Your task to perform on an android device: What's on my calendar tomorrow? Image 0: 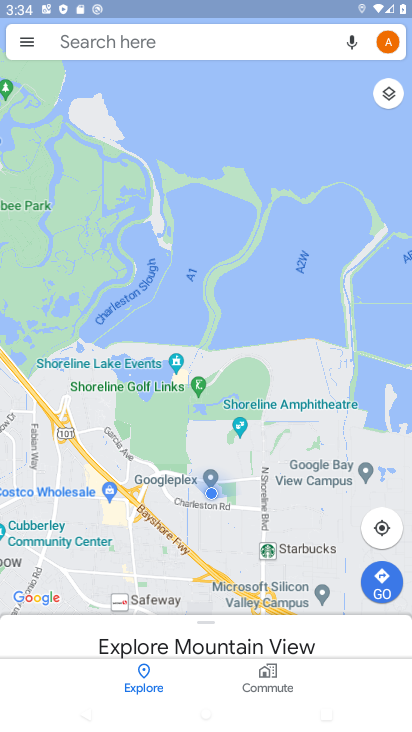
Step 0: press home button
Your task to perform on an android device: What's on my calendar tomorrow? Image 1: 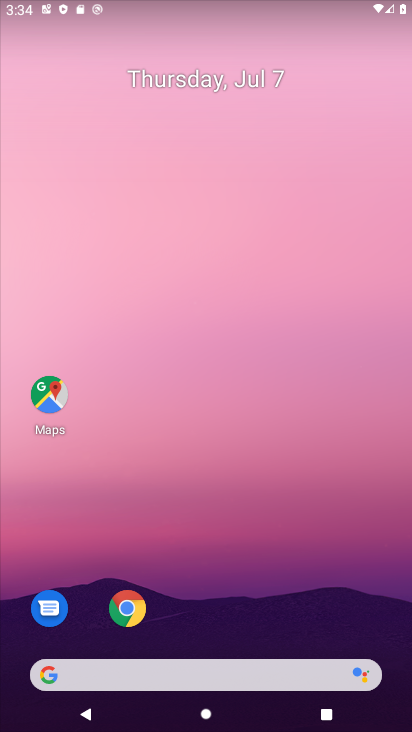
Step 1: drag from (376, 623) to (300, 28)
Your task to perform on an android device: What's on my calendar tomorrow? Image 2: 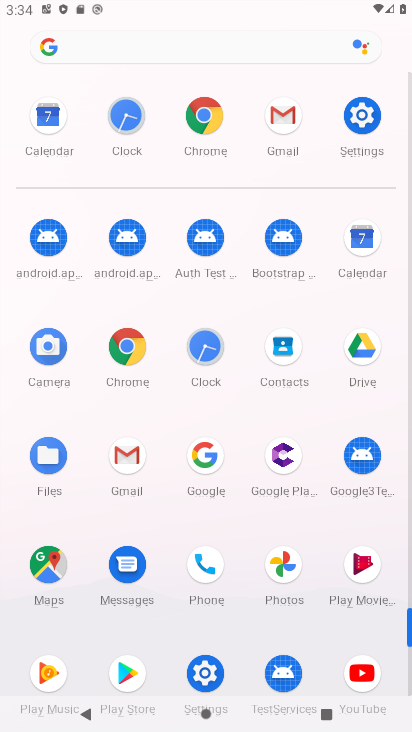
Step 2: click (363, 238)
Your task to perform on an android device: What's on my calendar tomorrow? Image 3: 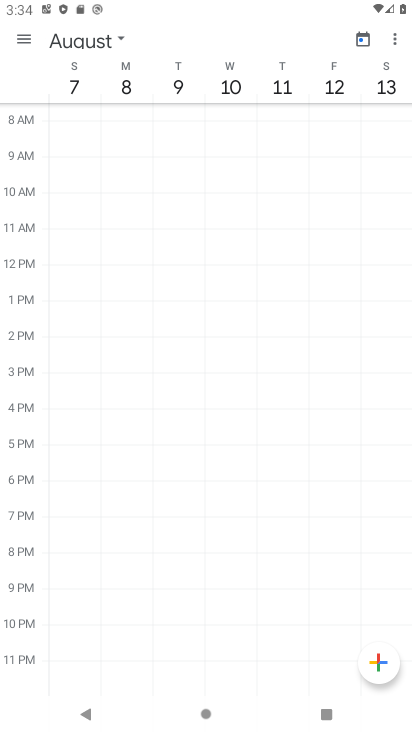
Step 3: click (26, 38)
Your task to perform on an android device: What's on my calendar tomorrow? Image 4: 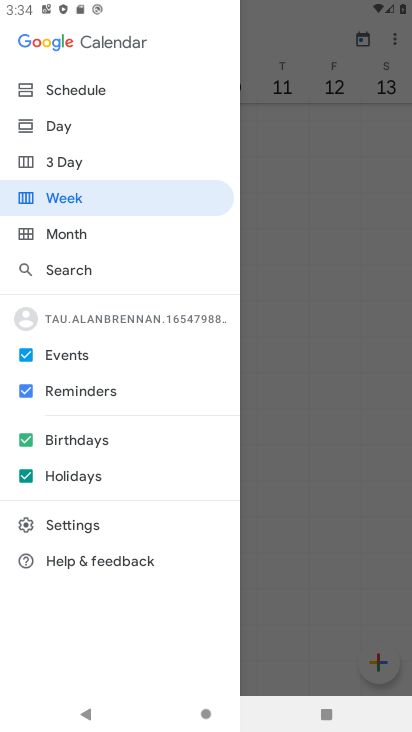
Step 4: click (55, 130)
Your task to perform on an android device: What's on my calendar tomorrow? Image 5: 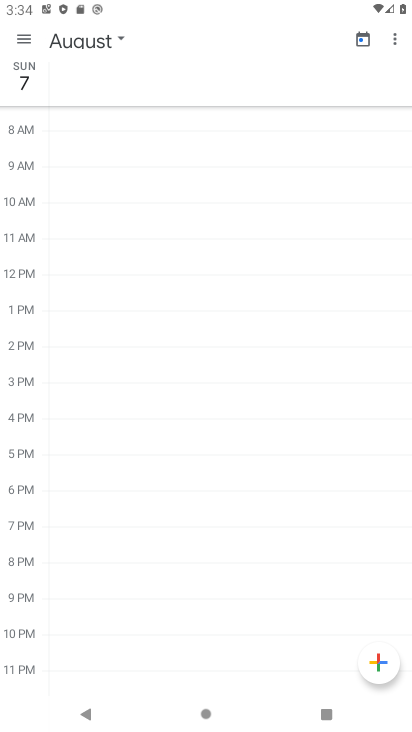
Step 5: click (113, 41)
Your task to perform on an android device: What's on my calendar tomorrow? Image 6: 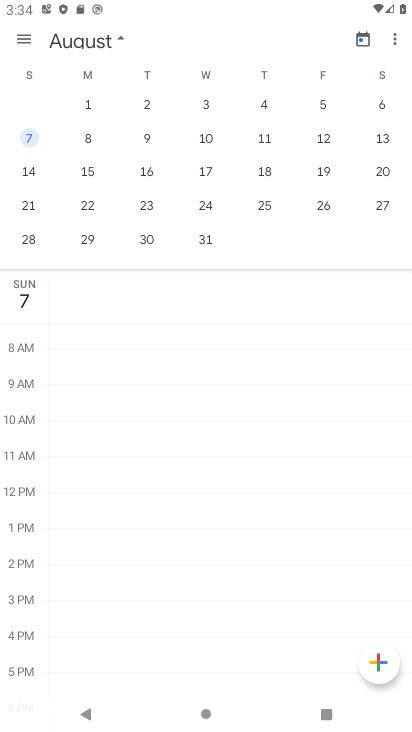
Step 6: drag from (25, 206) to (370, 166)
Your task to perform on an android device: What's on my calendar tomorrow? Image 7: 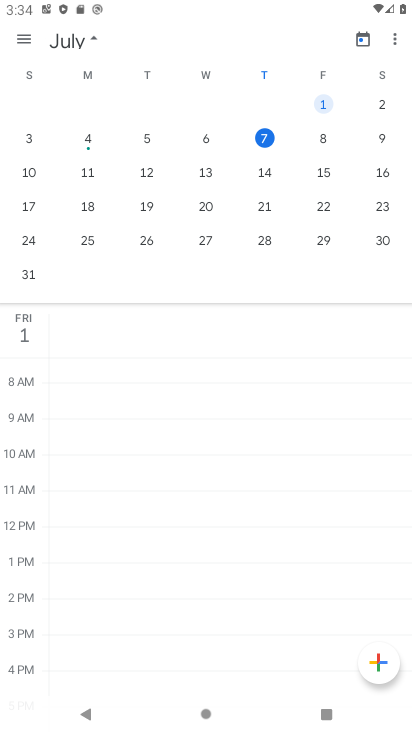
Step 7: click (320, 137)
Your task to perform on an android device: What's on my calendar tomorrow? Image 8: 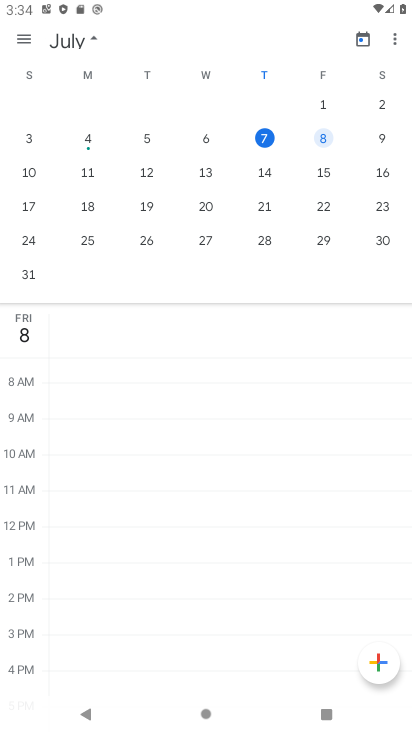
Step 8: task complete